Your task to perform on an android device: Show me popular games on the Play Store Image 0: 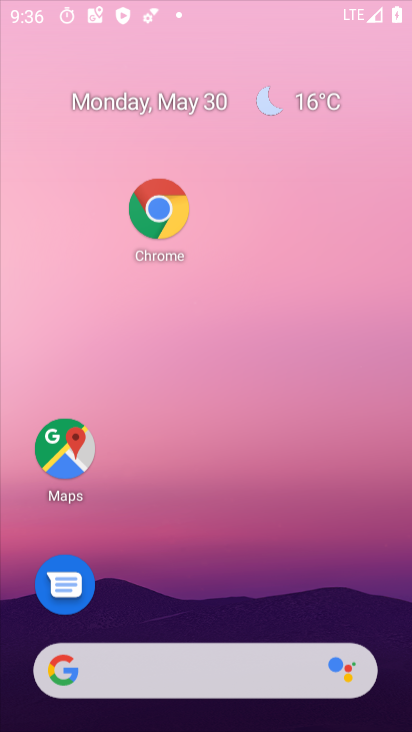
Step 0: click (404, 5)
Your task to perform on an android device: Show me popular games on the Play Store Image 1: 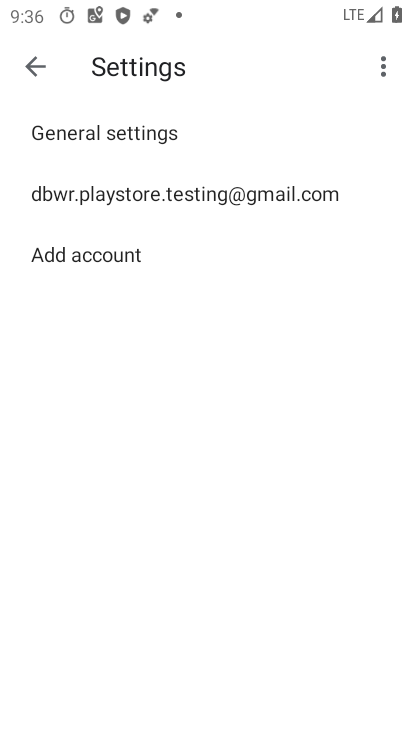
Step 1: press home button
Your task to perform on an android device: Show me popular games on the Play Store Image 2: 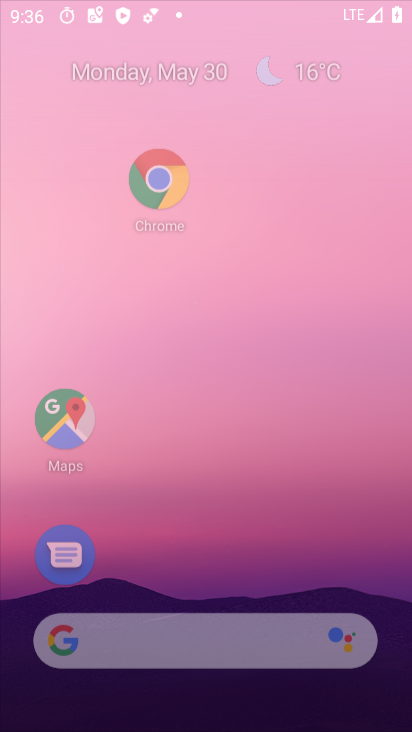
Step 2: drag from (229, 644) to (324, 2)
Your task to perform on an android device: Show me popular games on the Play Store Image 3: 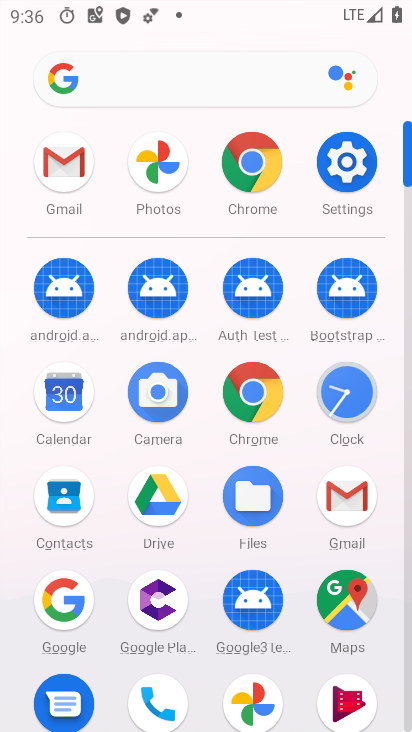
Step 3: drag from (195, 678) to (206, 255)
Your task to perform on an android device: Show me popular games on the Play Store Image 4: 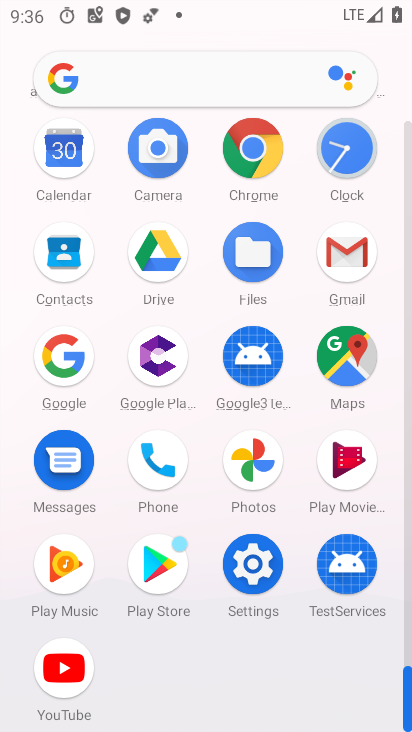
Step 4: click (157, 572)
Your task to perform on an android device: Show me popular games on the Play Store Image 5: 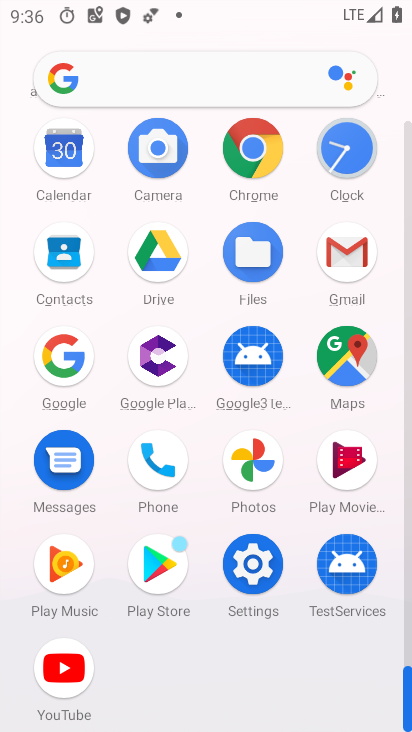
Step 5: click (157, 572)
Your task to perform on an android device: Show me popular games on the Play Store Image 6: 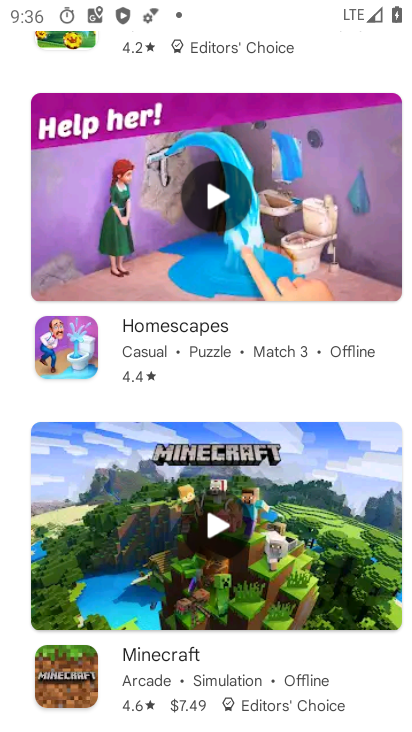
Step 6: press back button
Your task to perform on an android device: Show me popular games on the Play Store Image 7: 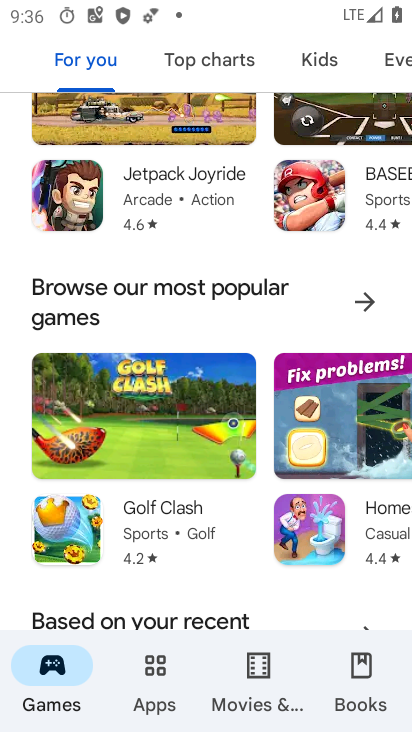
Step 7: drag from (213, 596) to (249, 580)
Your task to perform on an android device: Show me popular games on the Play Store Image 8: 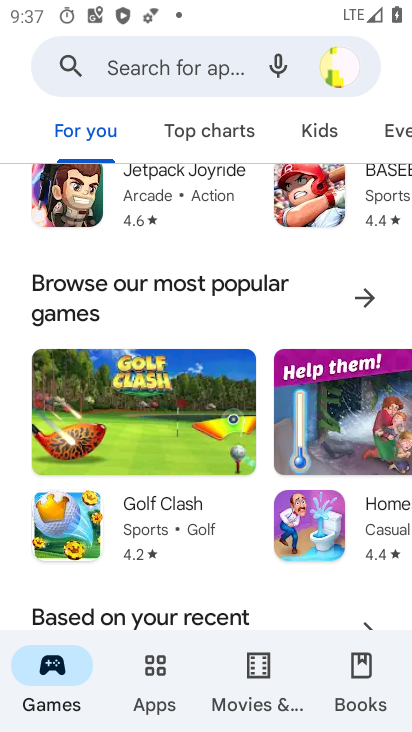
Step 8: click (365, 292)
Your task to perform on an android device: Show me popular games on the Play Store Image 9: 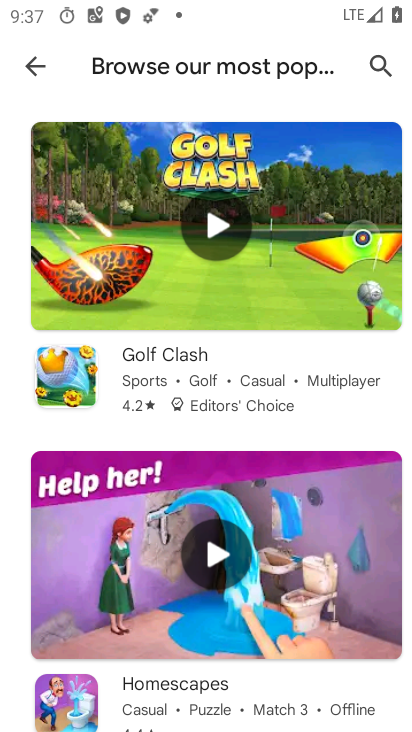
Step 9: task complete